Your task to perform on an android device: Add "razer naga" to the cart on newegg.com Image 0: 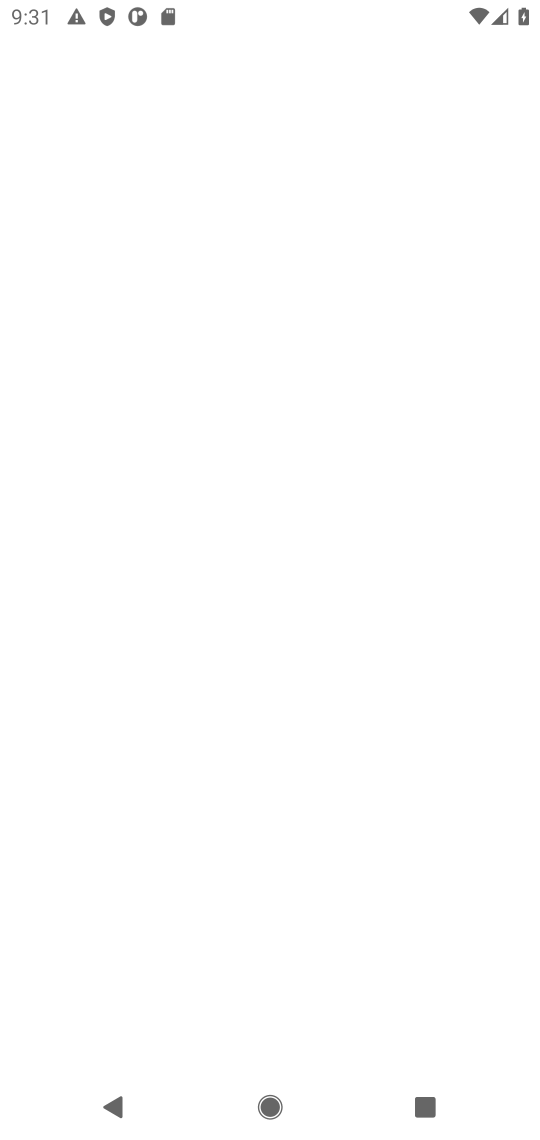
Step 0: press home button
Your task to perform on an android device: Add "razer naga" to the cart on newegg.com Image 1: 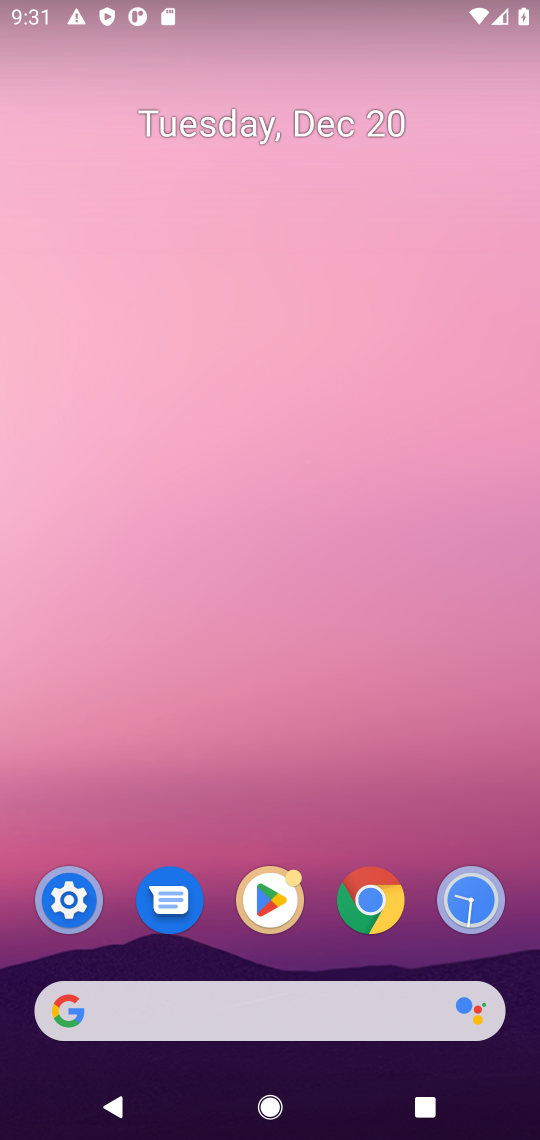
Step 1: click (376, 908)
Your task to perform on an android device: Add "razer naga" to the cart on newegg.com Image 2: 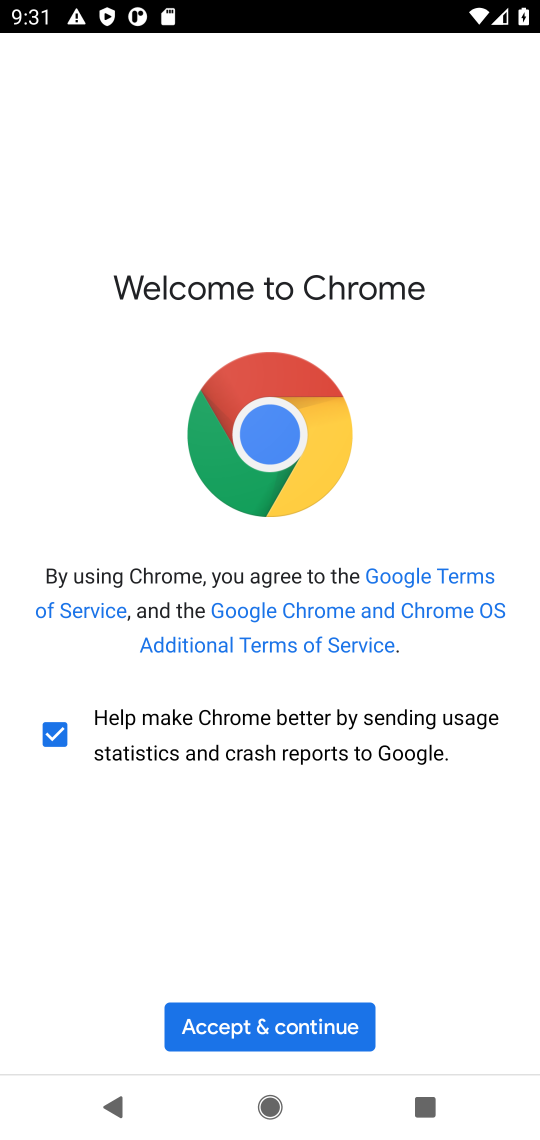
Step 2: click (265, 1032)
Your task to perform on an android device: Add "razer naga" to the cart on newegg.com Image 3: 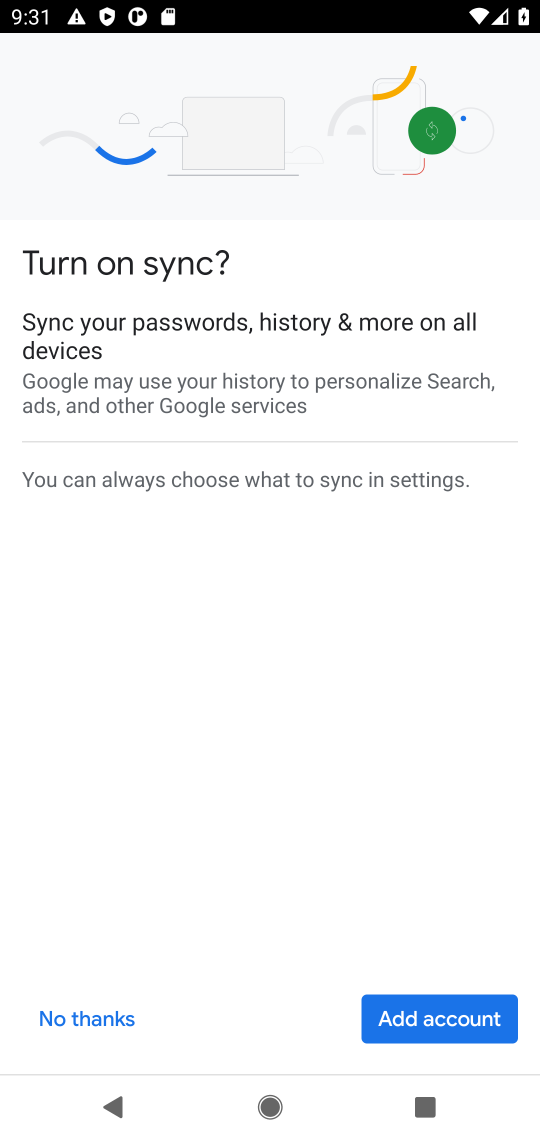
Step 3: click (101, 1026)
Your task to perform on an android device: Add "razer naga" to the cart on newegg.com Image 4: 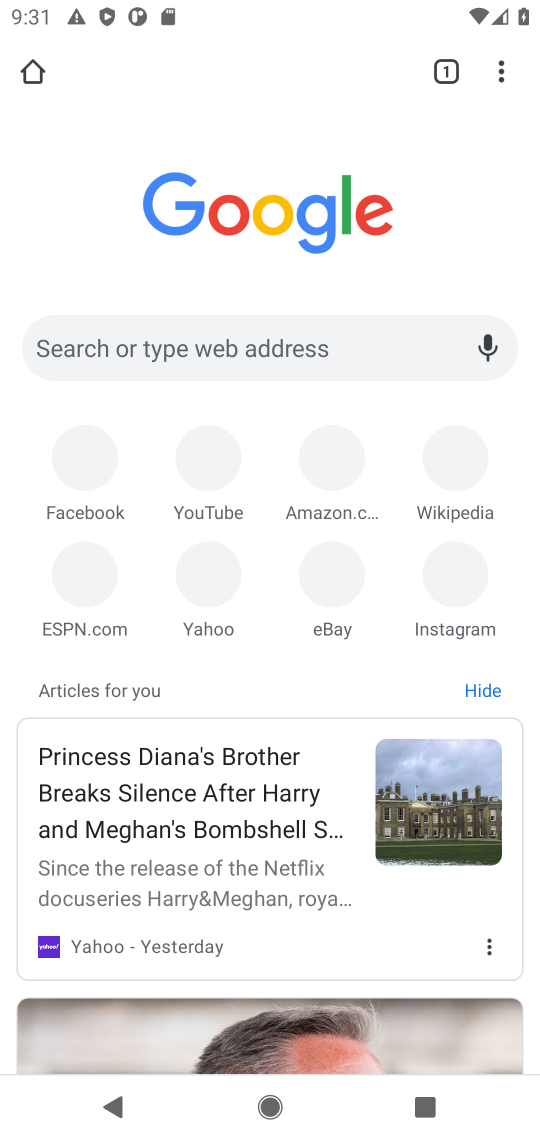
Step 4: click (179, 342)
Your task to perform on an android device: Add "razer naga" to the cart on newegg.com Image 5: 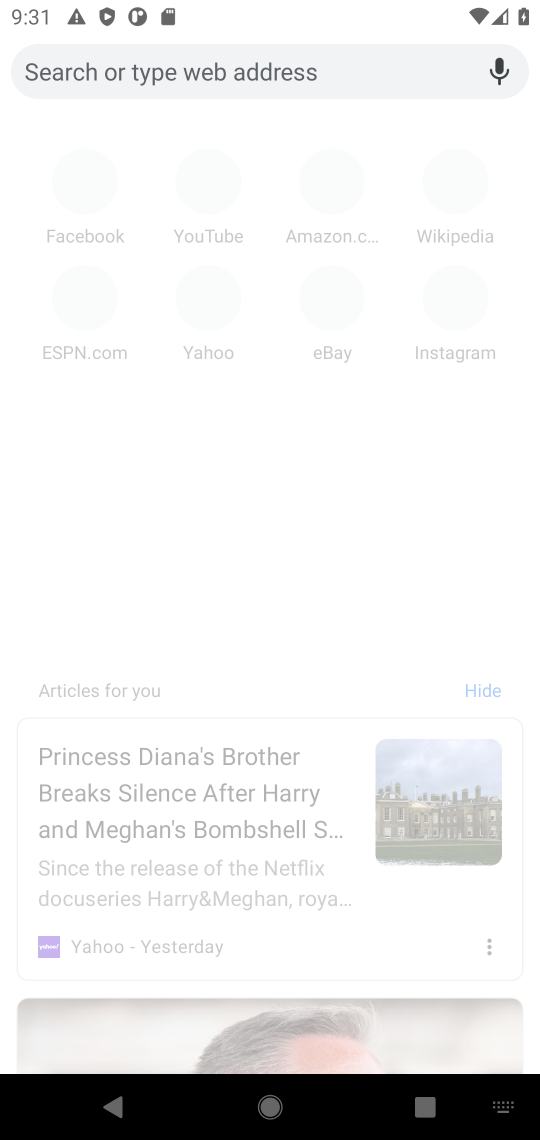
Step 5: type "newegg.com"
Your task to perform on an android device: Add "razer naga" to the cart on newegg.com Image 6: 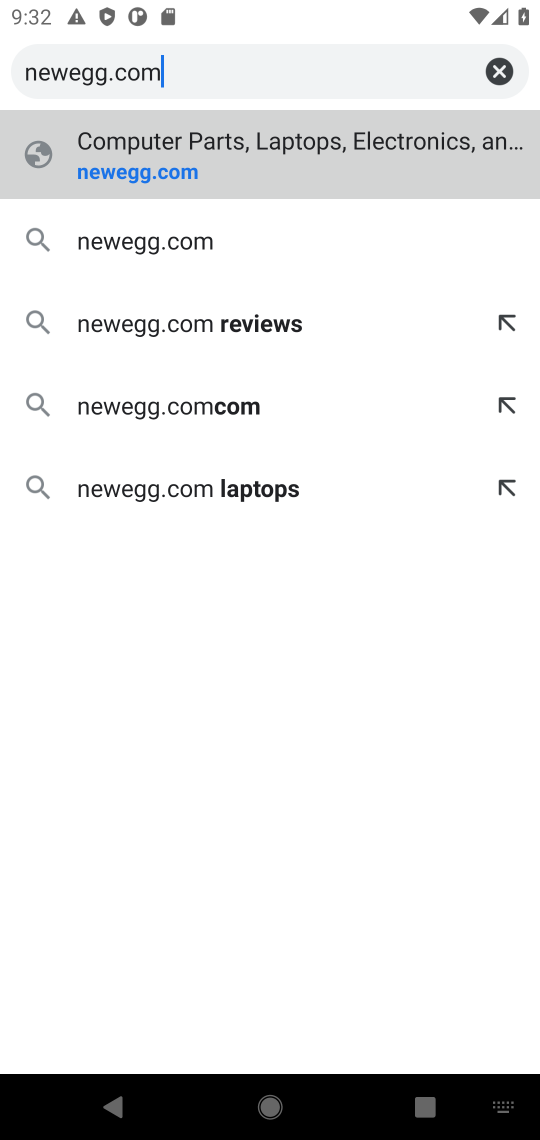
Step 6: click (118, 169)
Your task to perform on an android device: Add "razer naga" to the cart on newegg.com Image 7: 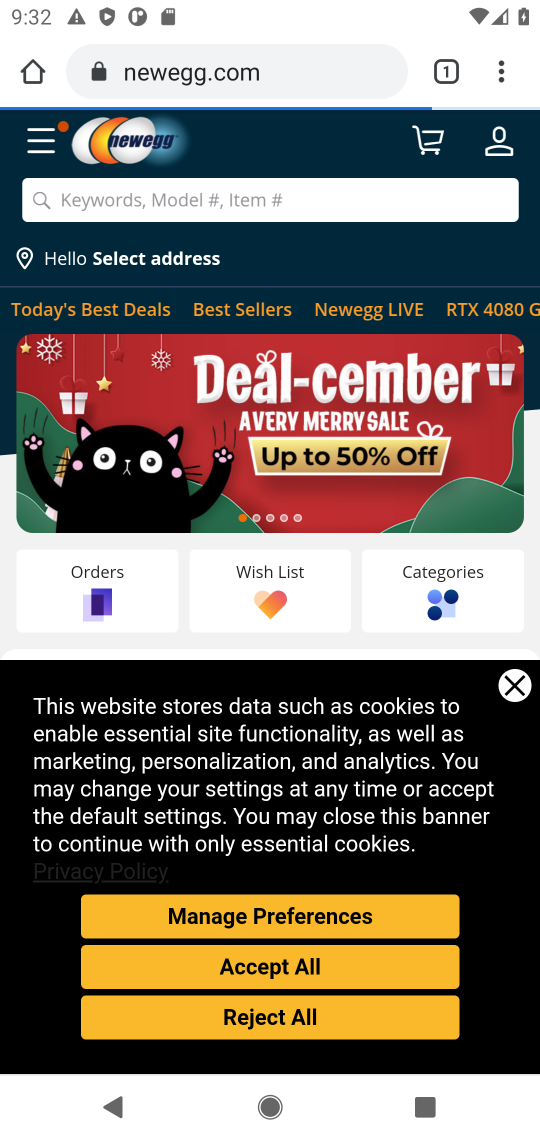
Step 7: click (515, 692)
Your task to perform on an android device: Add "razer naga" to the cart on newegg.com Image 8: 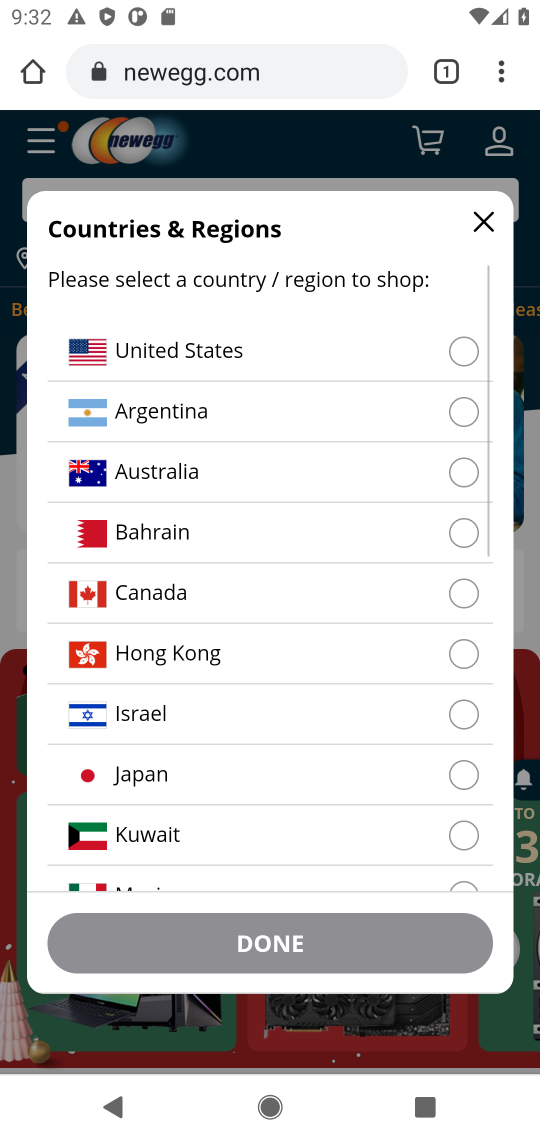
Step 8: click (164, 357)
Your task to perform on an android device: Add "razer naga" to the cart on newegg.com Image 9: 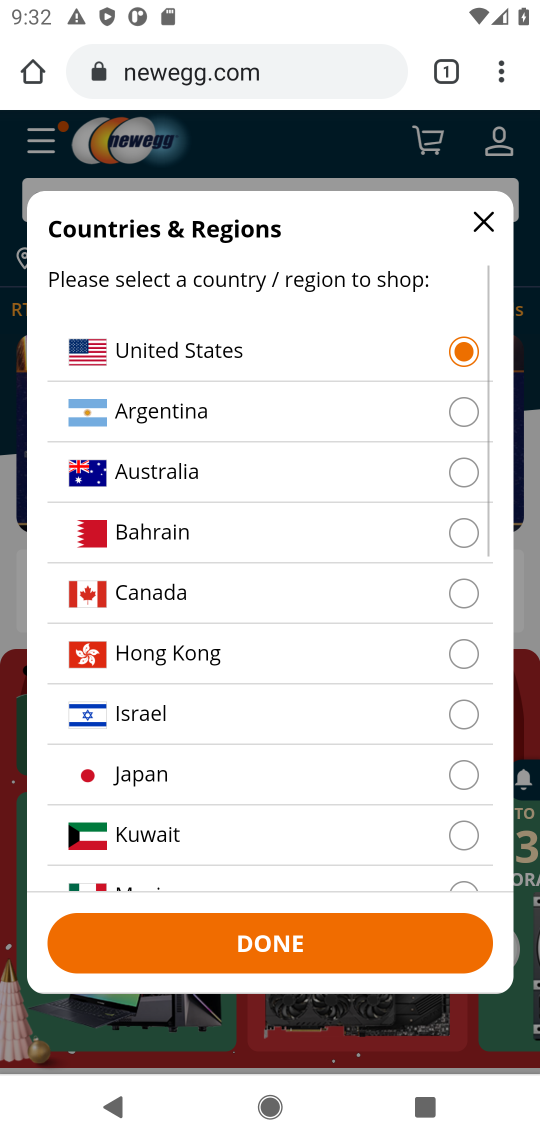
Step 9: click (232, 926)
Your task to perform on an android device: Add "razer naga" to the cart on newegg.com Image 10: 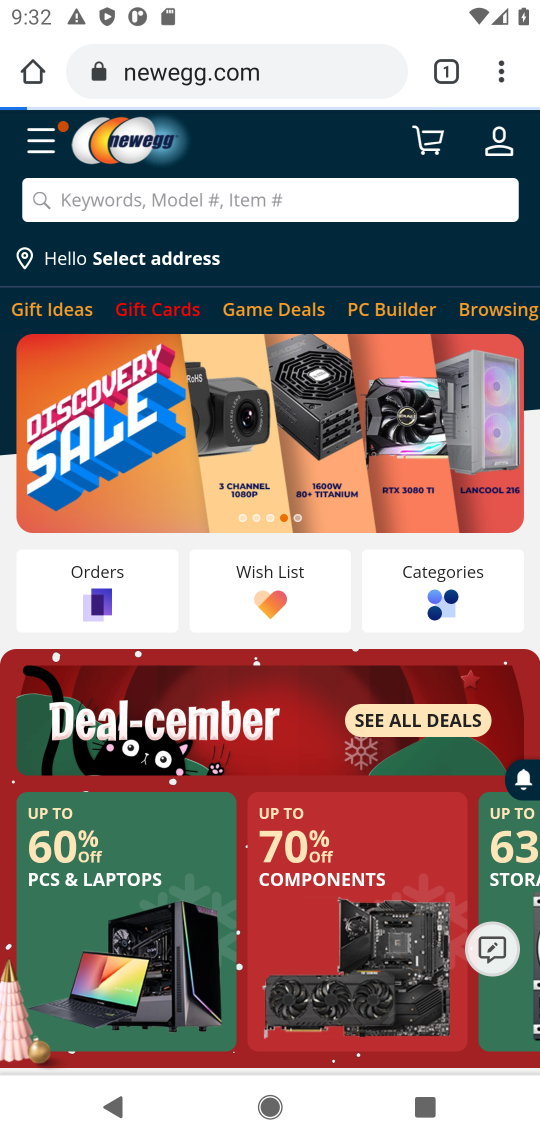
Step 10: click (150, 206)
Your task to perform on an android device: Add "razer naga" to the cart on newegg.com Image 11: 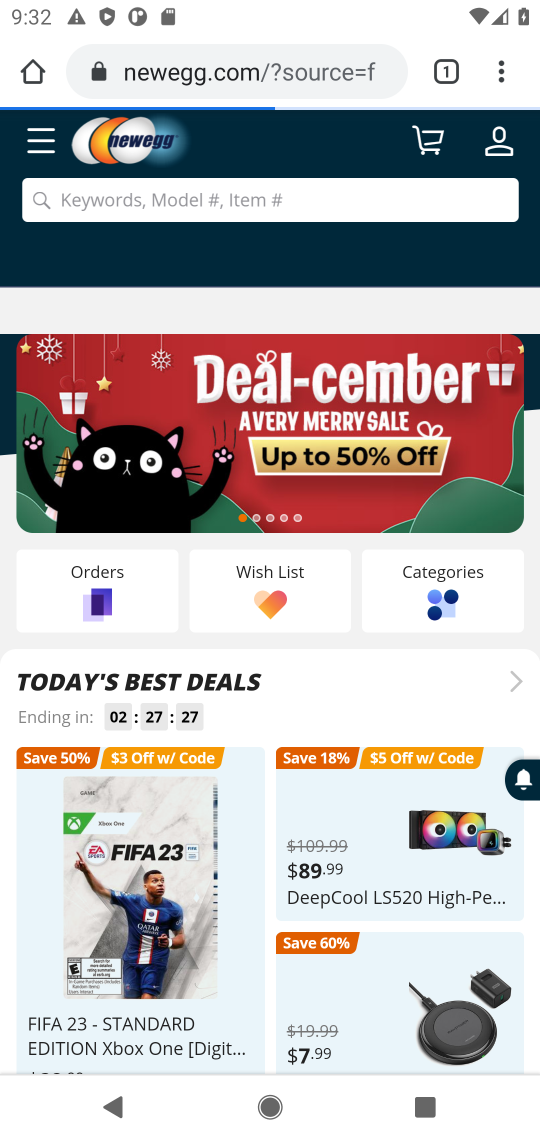
Step 11: click (95, 205)
Your task to perform on an android device: Add "razer naga" to the cart on newegg.com Image 12: 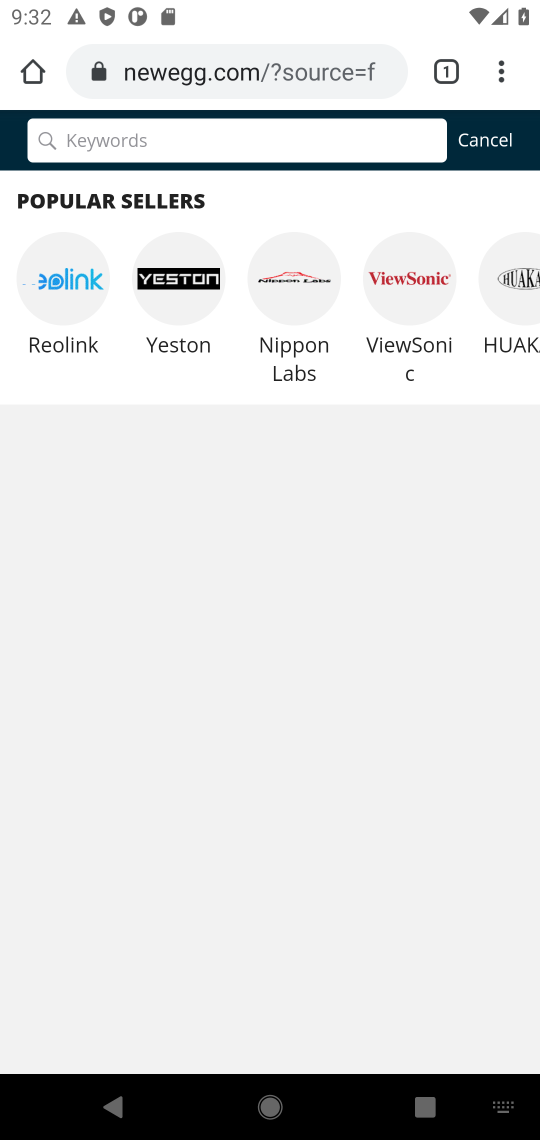
Step 12: type "razer naga"
Your task to perform on an android device: Add "razer naga" to the cart on newegg.com Image 13: 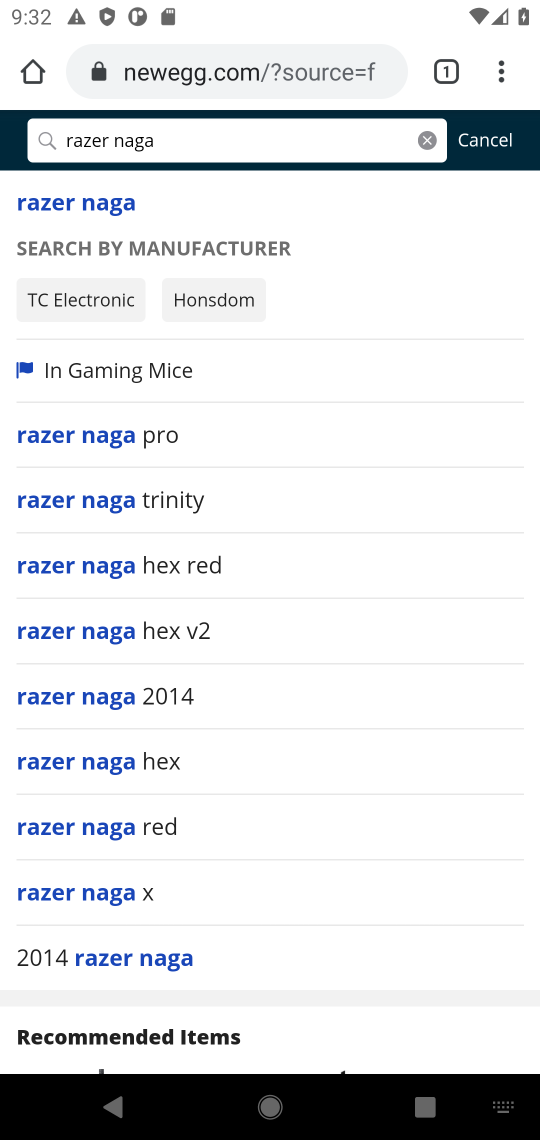
Step 13: click (58, 201)
Your task to perform on an android device: Add "razer naga" to the cart on newegg.com Image 14: 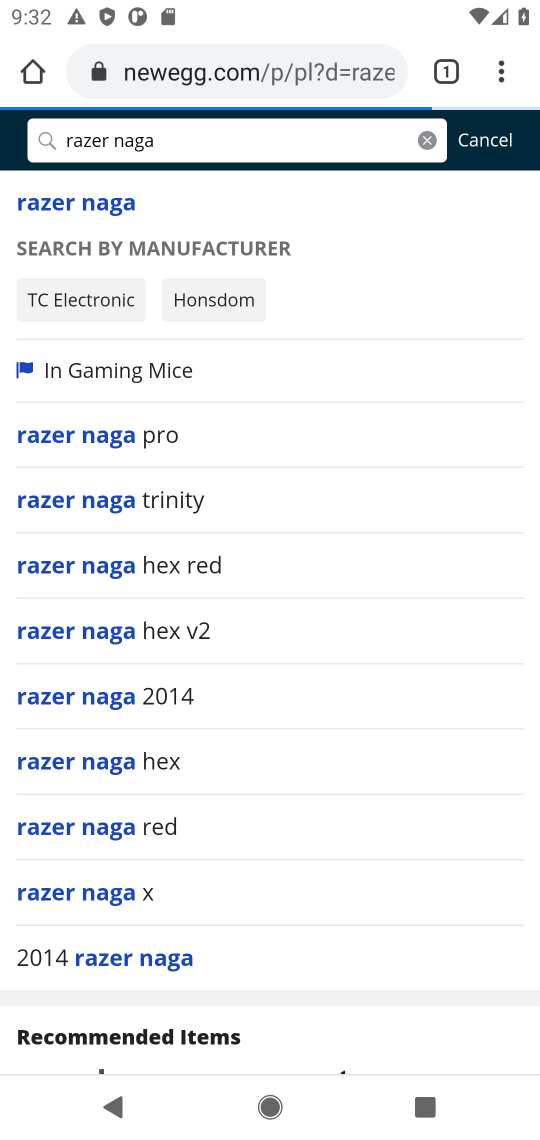
Step 14: click (58, 201)
Your task to perform on an android device: Add "razer naga" to the cart on newegg.com Image 15: 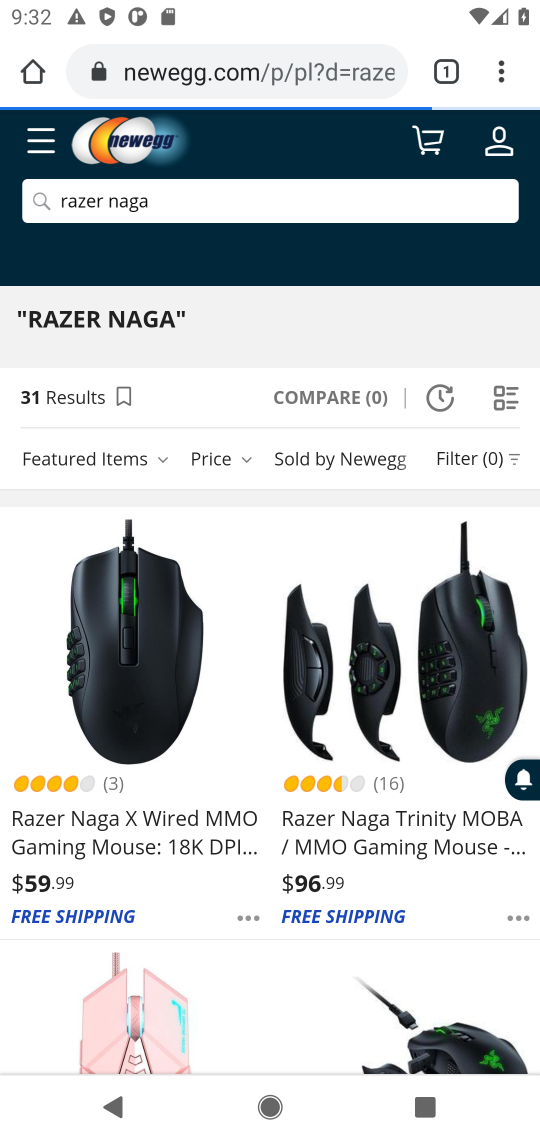
Step 15: click (65, 820)
Your task to perform on an android device: Add "razer naga" to the cart on newegg.com Image 16: 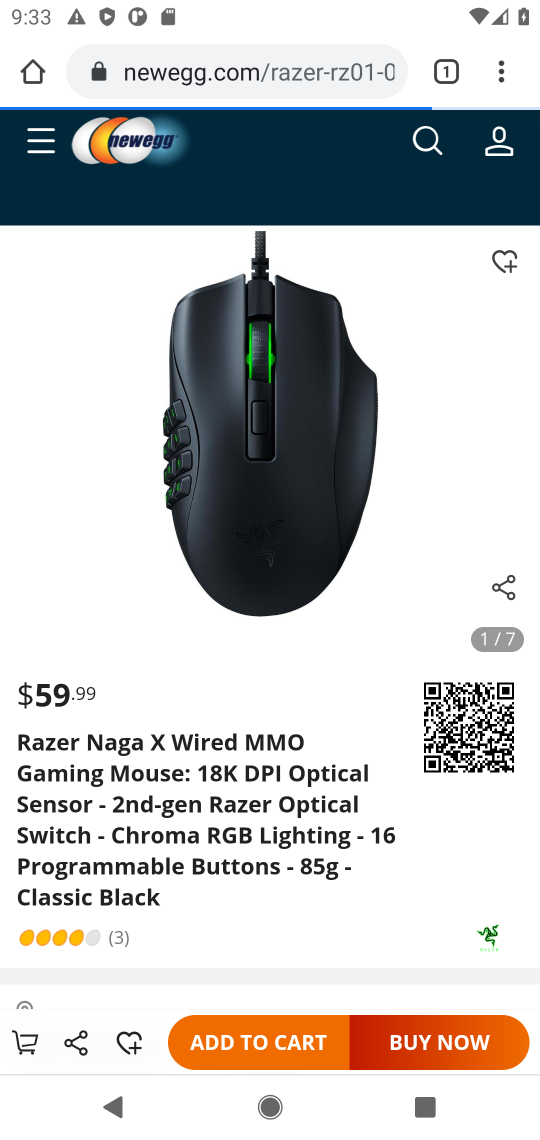
Step 16: click (230, 1048)
Your task to perform on an android device: Add "razer naga" to the cart on newegg.com Image 17: 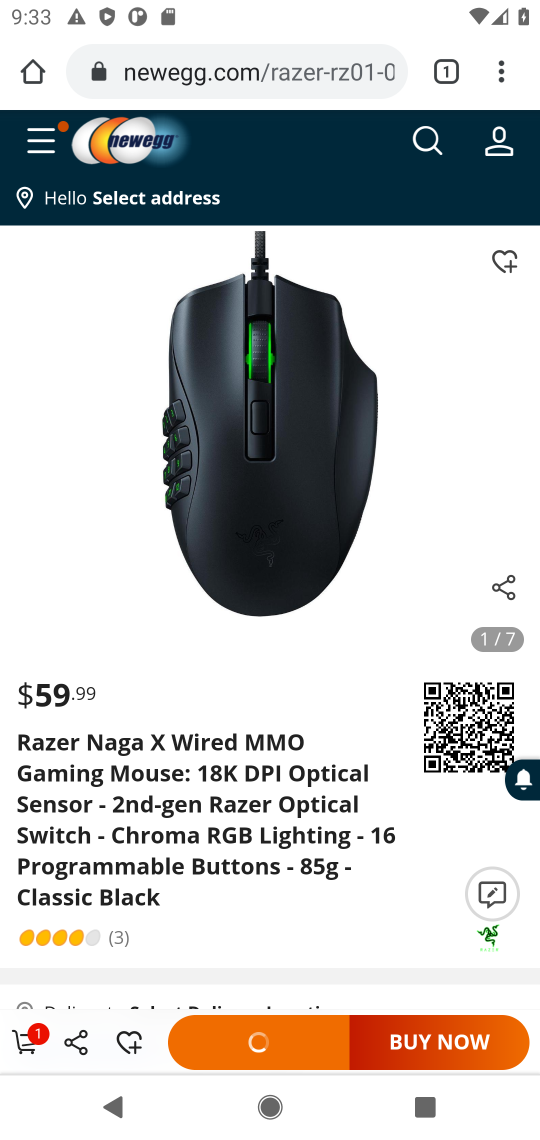
Step 17: click (230, 1048)
Your task to perform on an android device: Add "razer naga" to the cart on newegg.com Image 18: 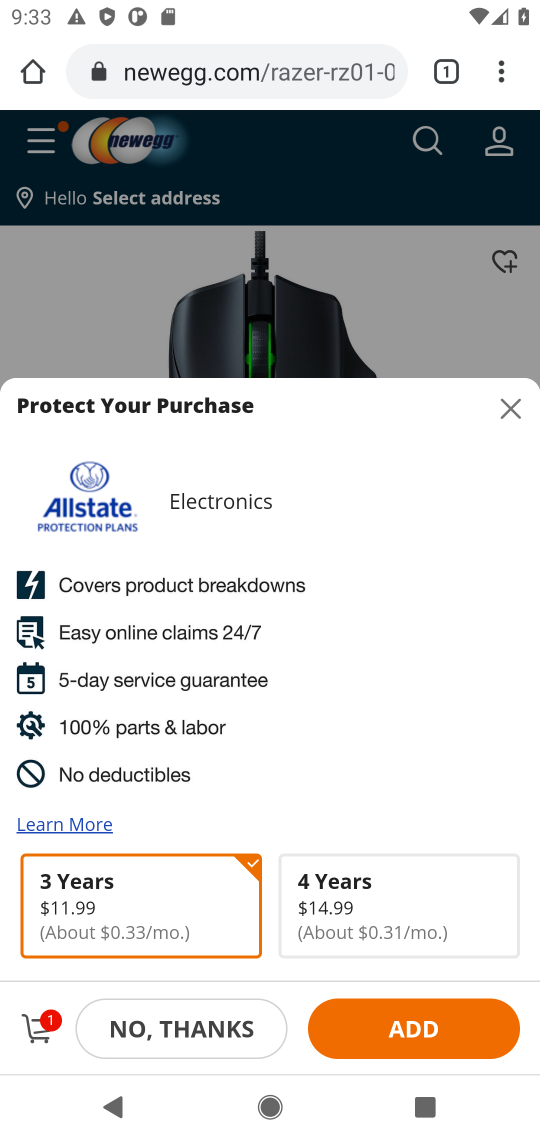
Step 18: task complete